Your task to perform on an android device: Find coffee shops on Maps Image 0: 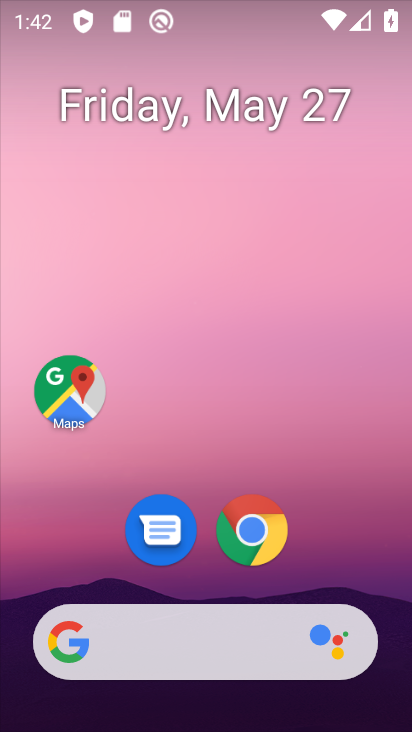
Step 0: click (73, 420)
Your task to perform on an android device: Find coffee shops on Maps Image 1: 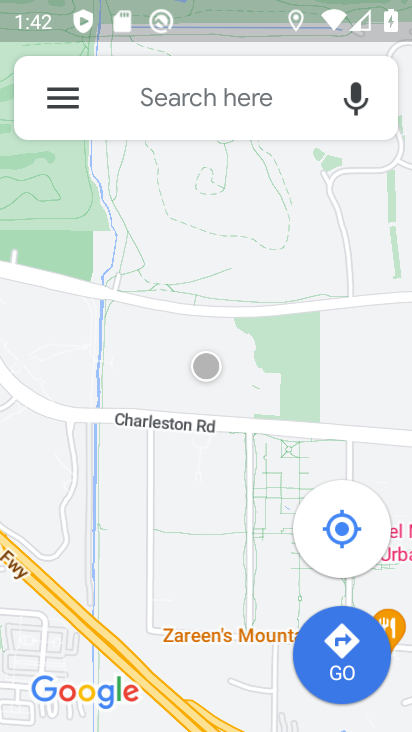
Step 1: click (164, 98)
Your task to perform on an android device: Find coffee shops on Maps Image 2: 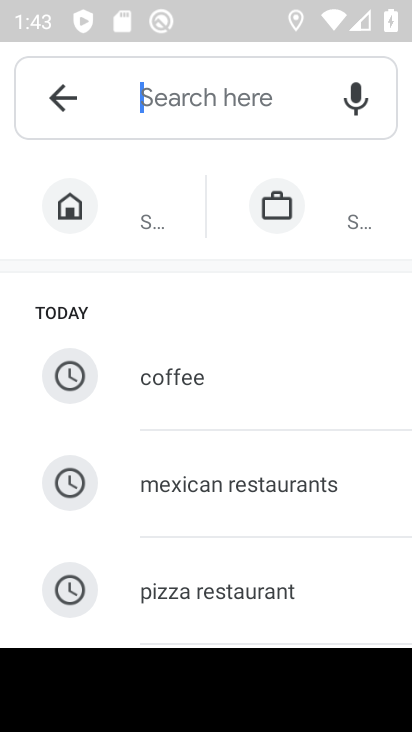
Step 2: type "coffee shops"
Your task to perform on an android device: Find coffee shops on Maps Image 3: 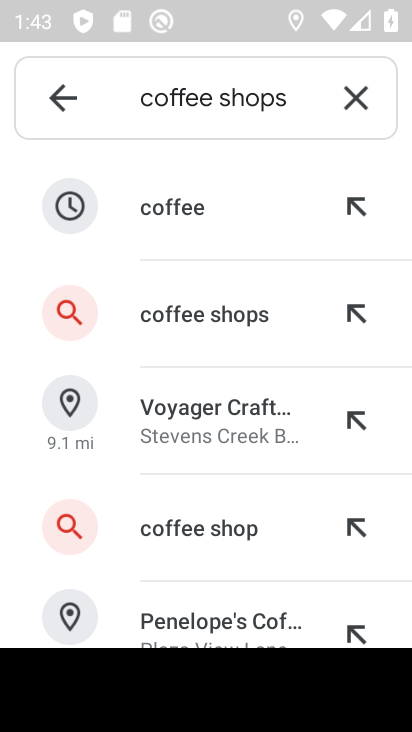
Step 3: click (250, 326)
Your task to perform on an android device: Find coffee shops on Maps Image 4: 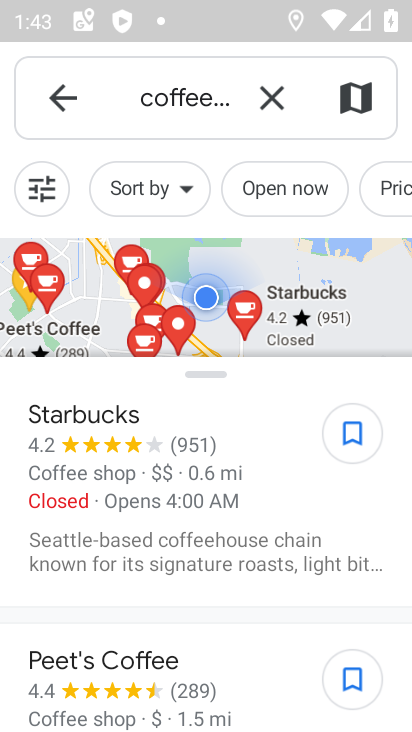
Step 4: task complete